Your task to perform on an android device: Open the map Image 0: 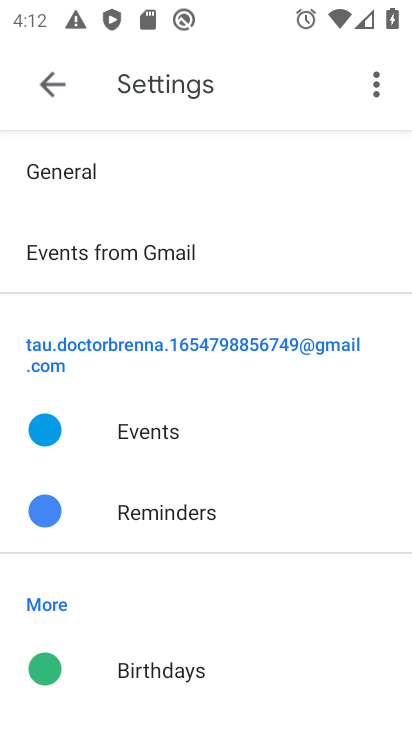
Step 0: press home button
Your task to perform on an android device: Open the map Image 1: 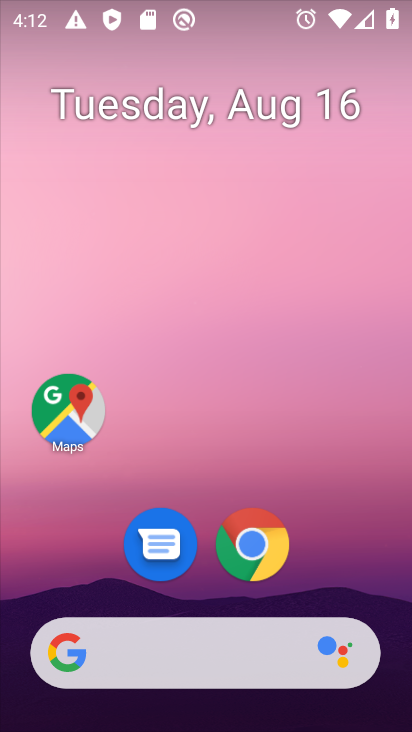
Step 1: click (84, 412)
Your task to perform on an android device: Open the map Image 2: 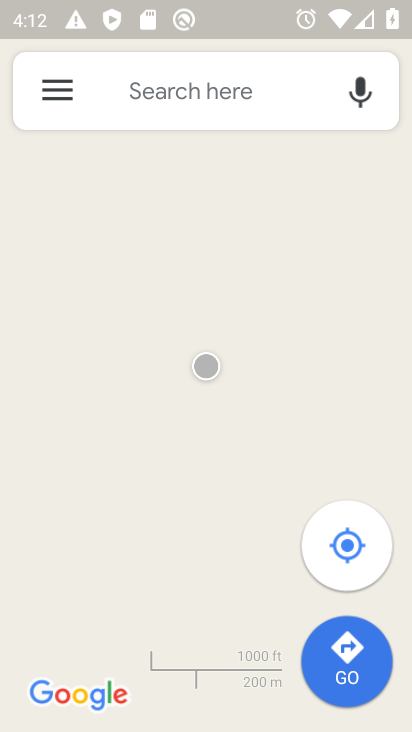
Step 2: task complete